Your task to perform on an android device: check the backup settings in the google photos Image 0: 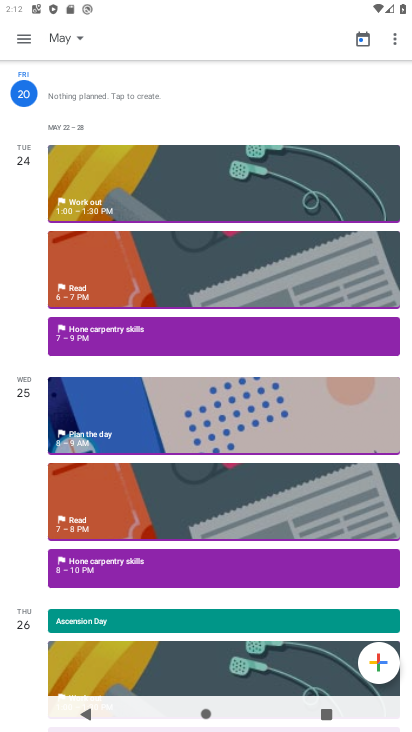
Step 0: press back button
Your task to perform on an android device: check the backup settings in the google photos Image 1: 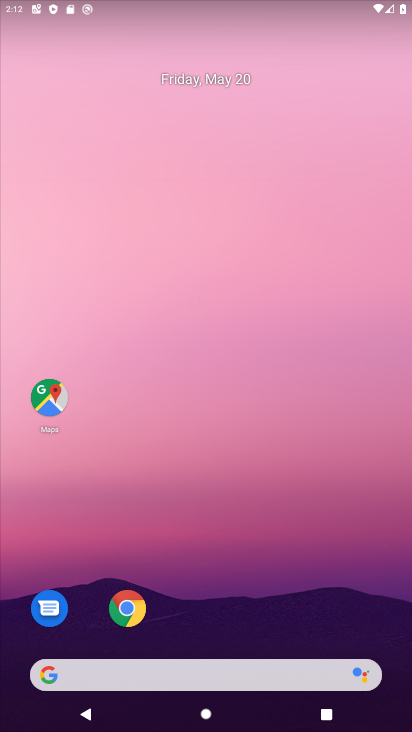
Step 1: drag from (235, 497) to (255, 20)
Your task to perform on an android device: check the backup settings in the google photos Image 2: 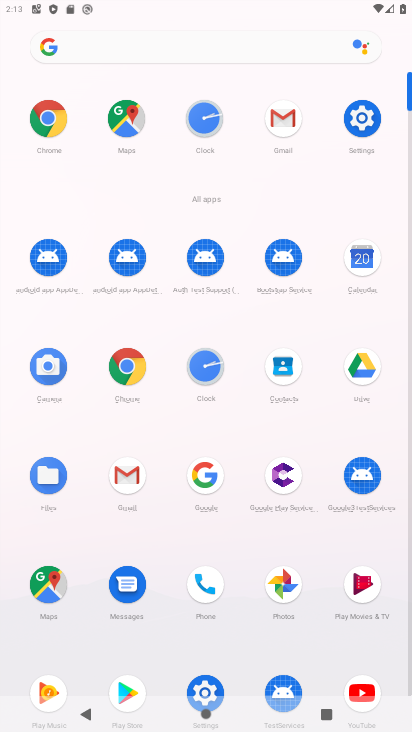
Step 2: click (275, 584)
Your task to perform on an android device: check the backup settings in the google photos Image 3: 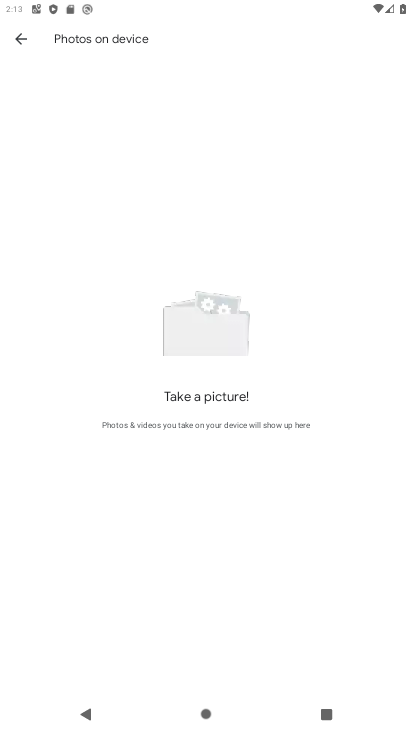
Step 3: click (16, 32)
Your task to perform on an android device: check the backup settings in the google photos Image 4: 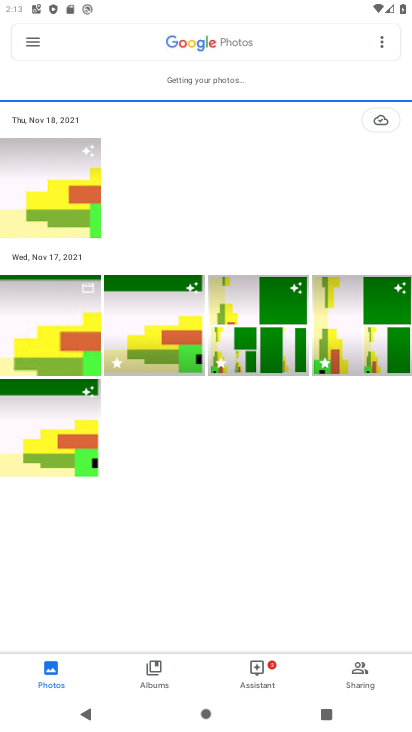
Step 4: click (30, 38)
Your task to perform on an android device: check the backup settings in the google photos Image 5: 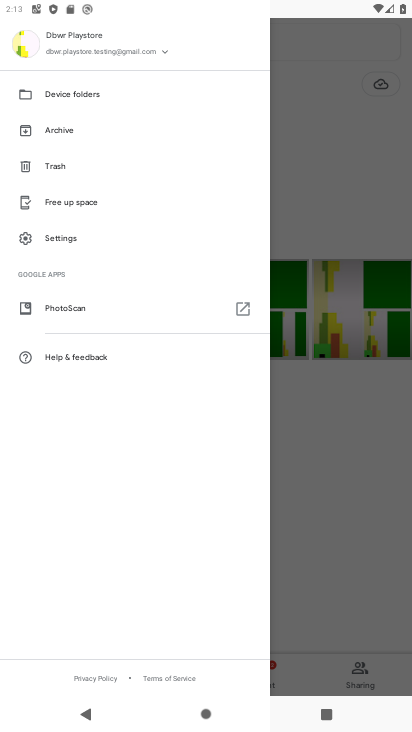
Step 5: click (60, 236)
Your task to perform on an android device: check the backup settings in the google photos Image 6: 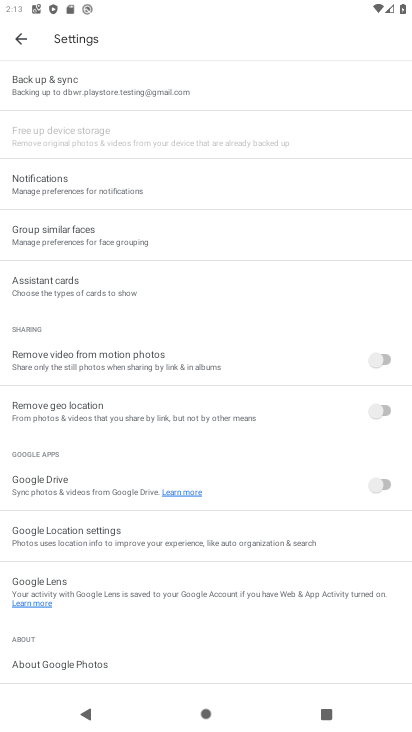
Step 6: click (76, 92)
Your task to perform on an android device: check the backup settings in the google photos Image 7: 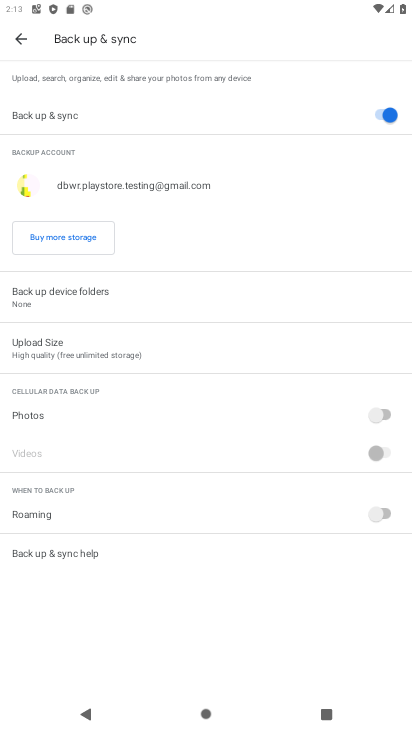
Step 7: task complete